Your task to perform on an android device: Open sound settings Image 0: 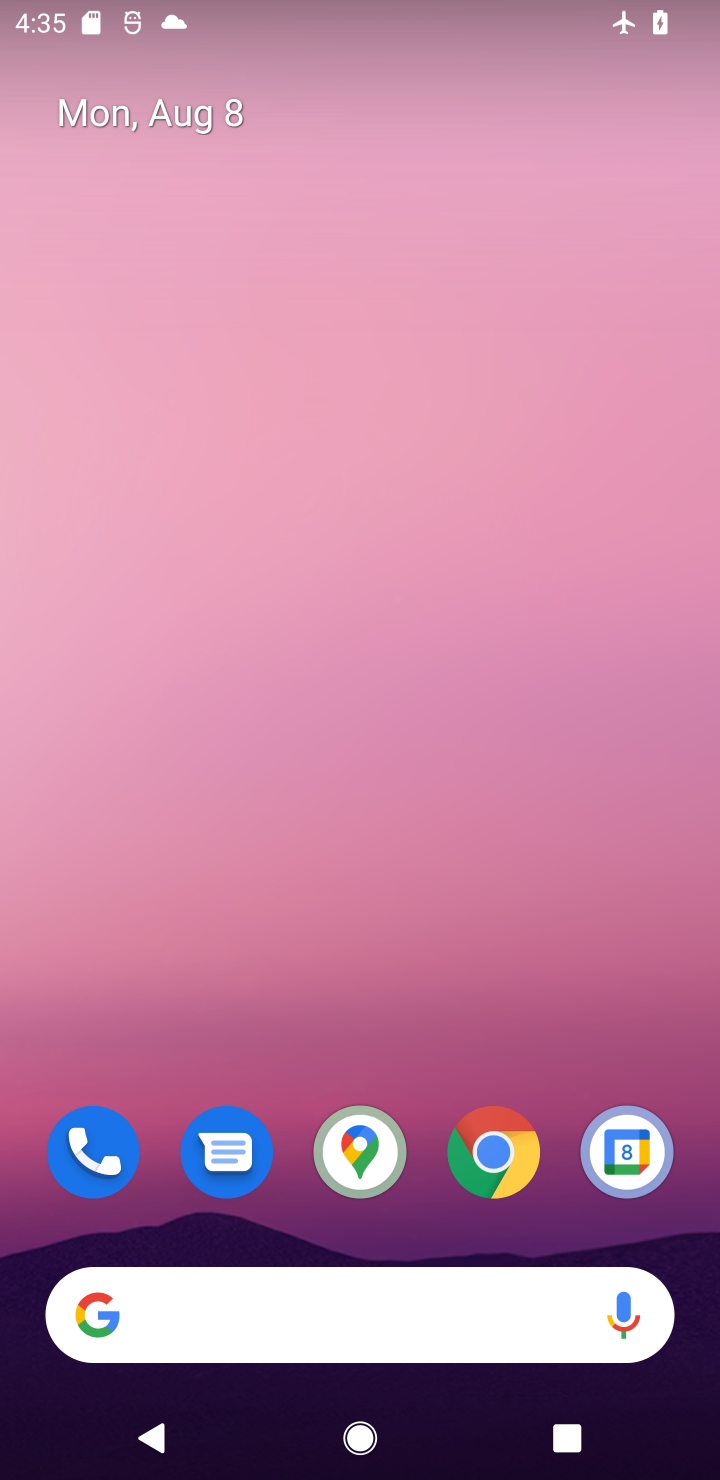
Step 0: drag from (219, 1147) to (350, 6)
Your task to perform on an android device: Open sound settings Image 1: 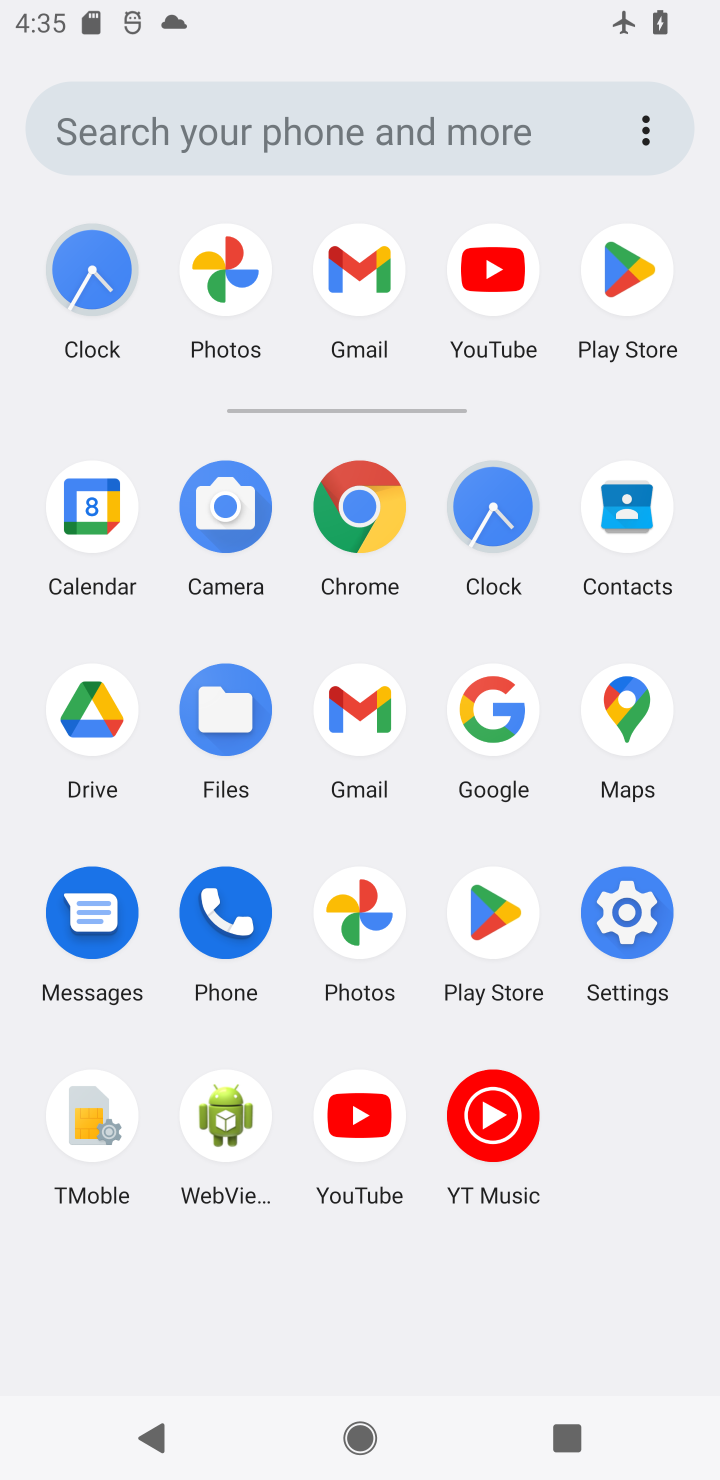
Step 1: click (626, 928)
Your task to perform on an android device: Open sound settings Image 2: 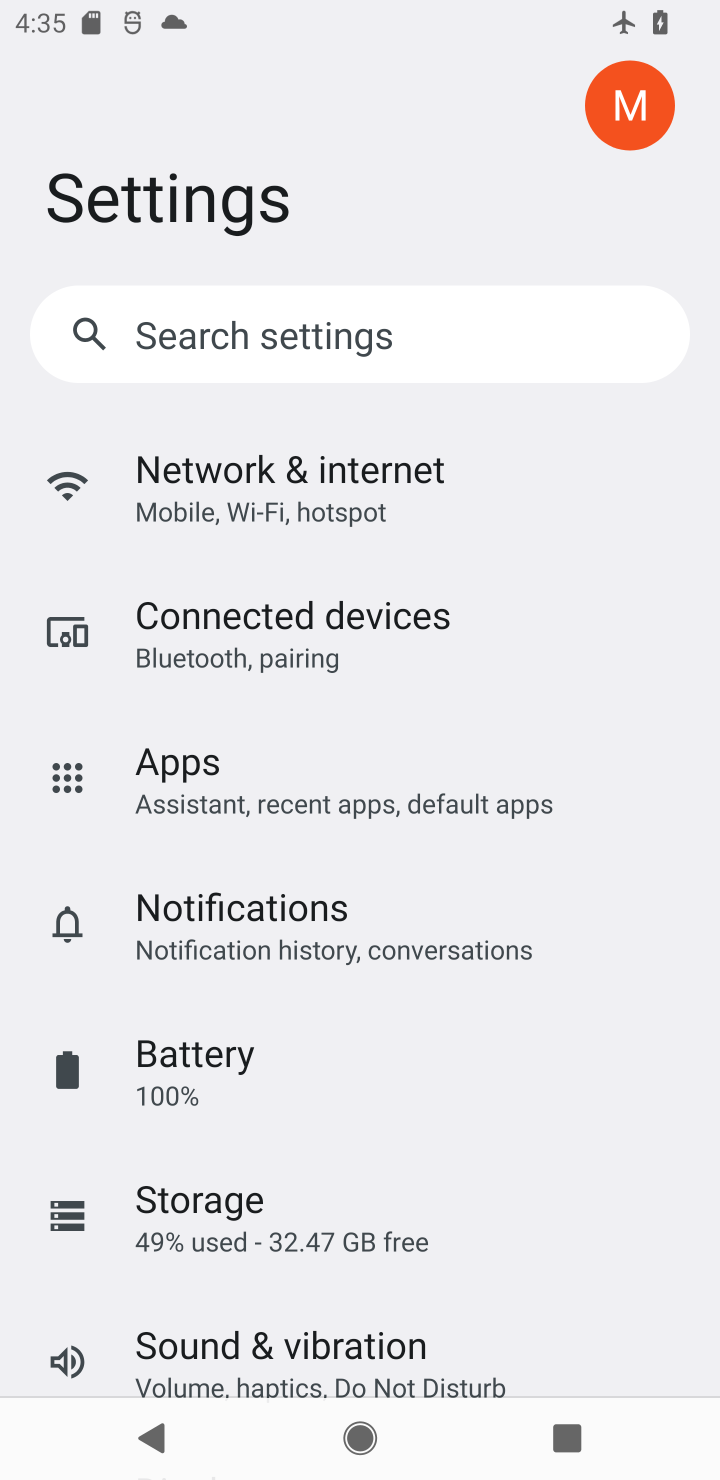
Step 2: drag from (306, 1231) to (440, 113)
Your task to perform on an android device: Open sound settings Image 3: 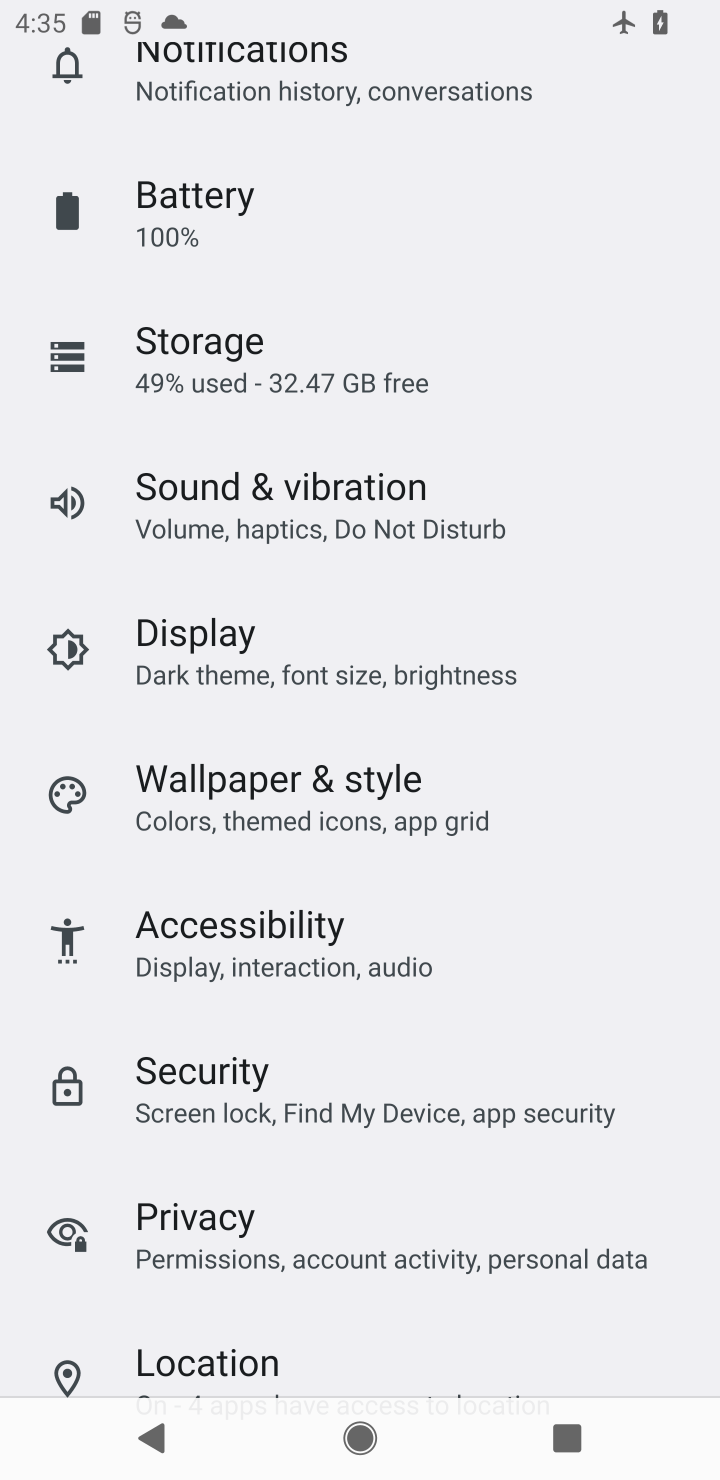
Step 3: drag from (269, 1232) to (388, 241)
Your task to perform on an android device: Open sound settings Image 4: 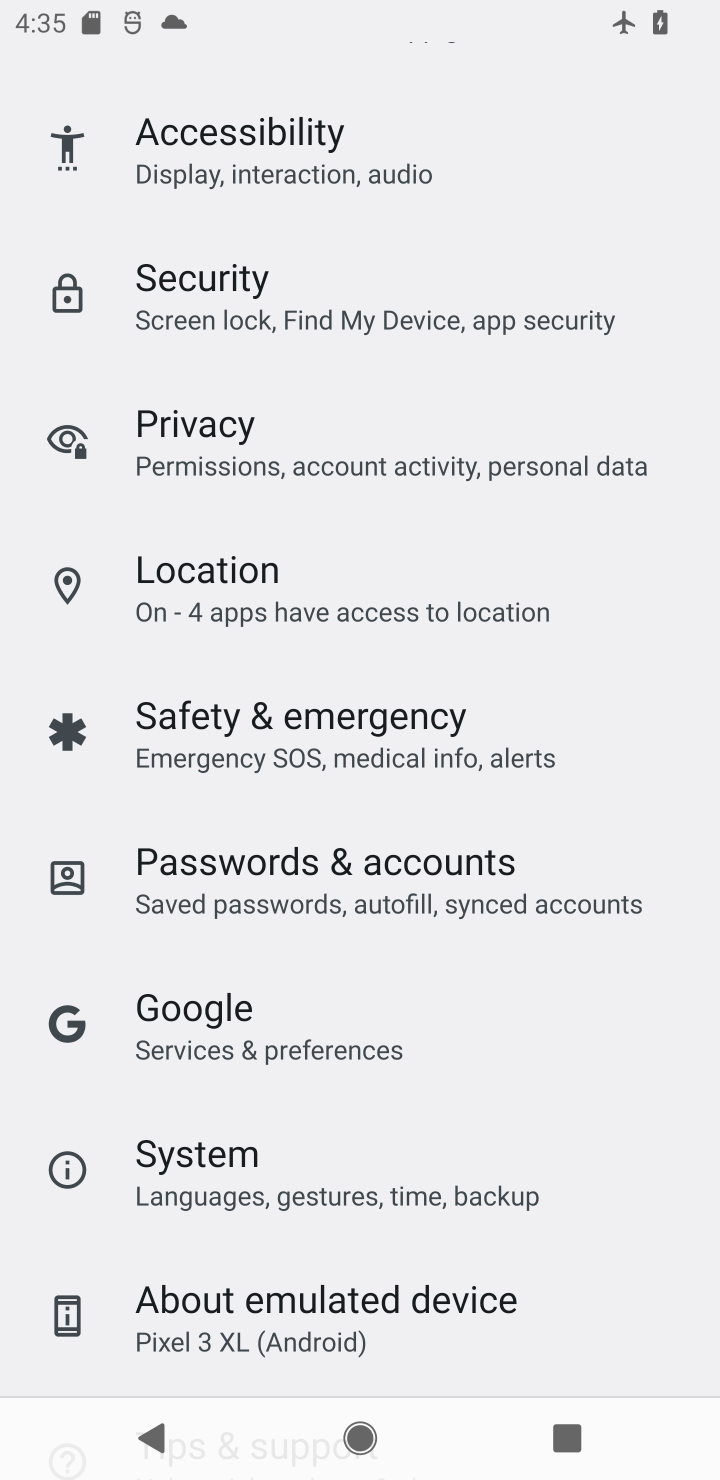
Step 4: drag from (342, 352) to (315, 1116)
Your task to perform on an android device: Open sound settings Image 5: 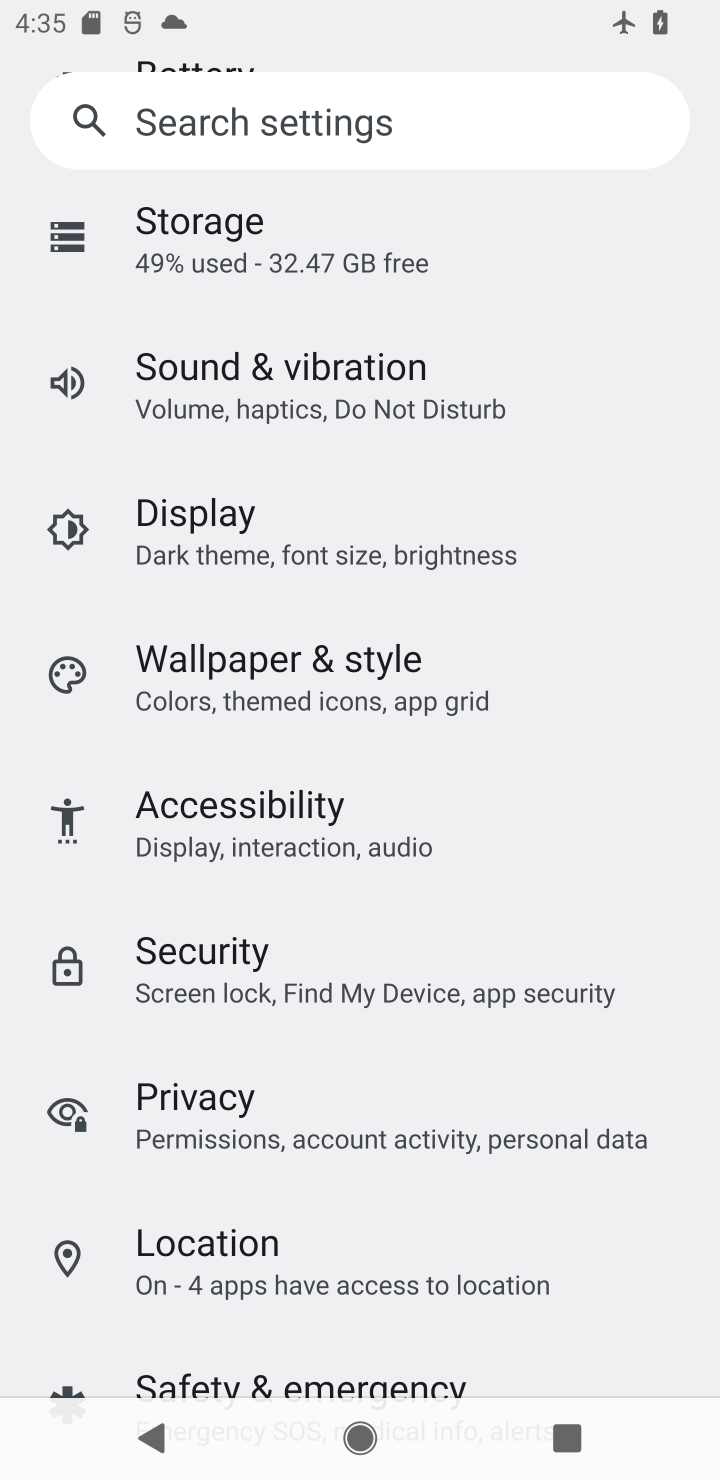
Step 5: click (310, 389)
Your task to perform on an android device: Open sound settings Image 6: 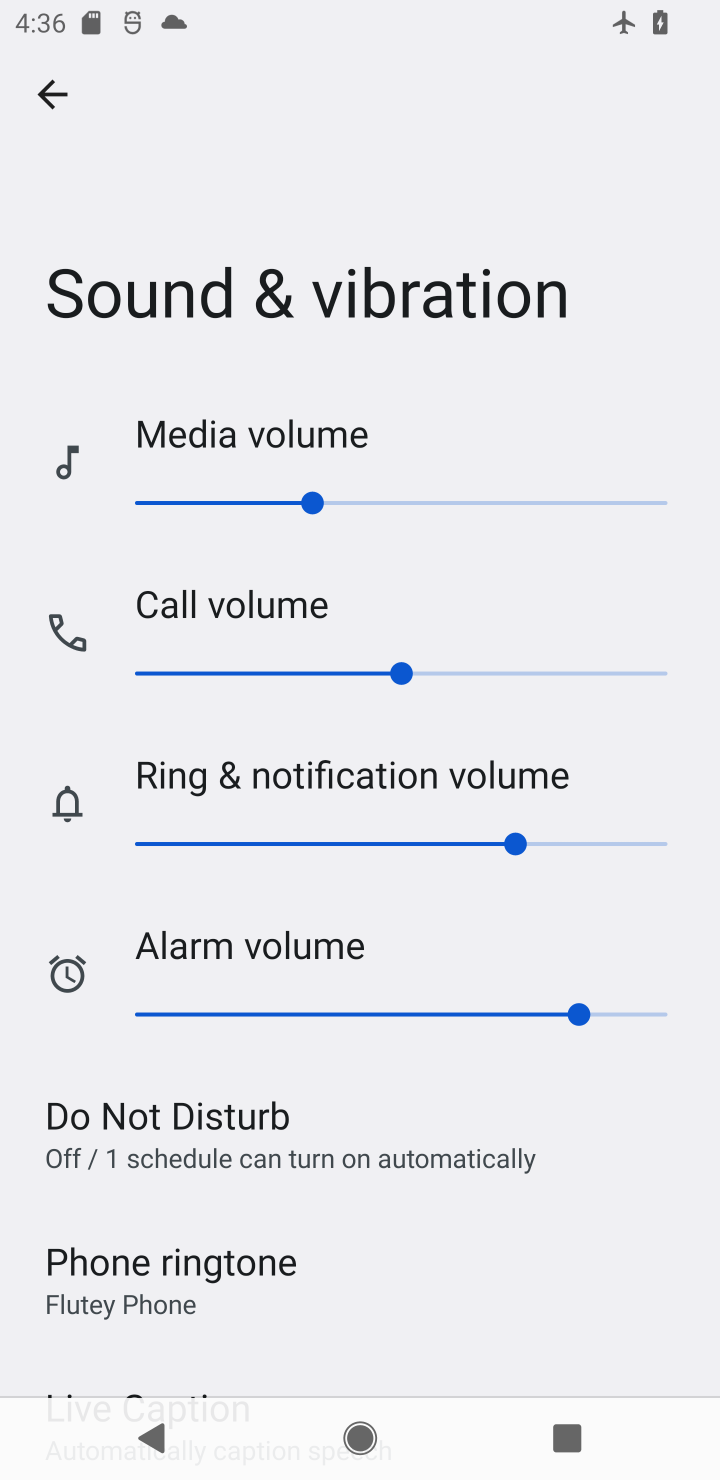
Step 6: task complete